Your task to perform on an android device: Clear the shopping cart on target.com. Search for "apple airpods pro" on target.com, select the first entry, add it to the cart, then select checkout. Image 0: 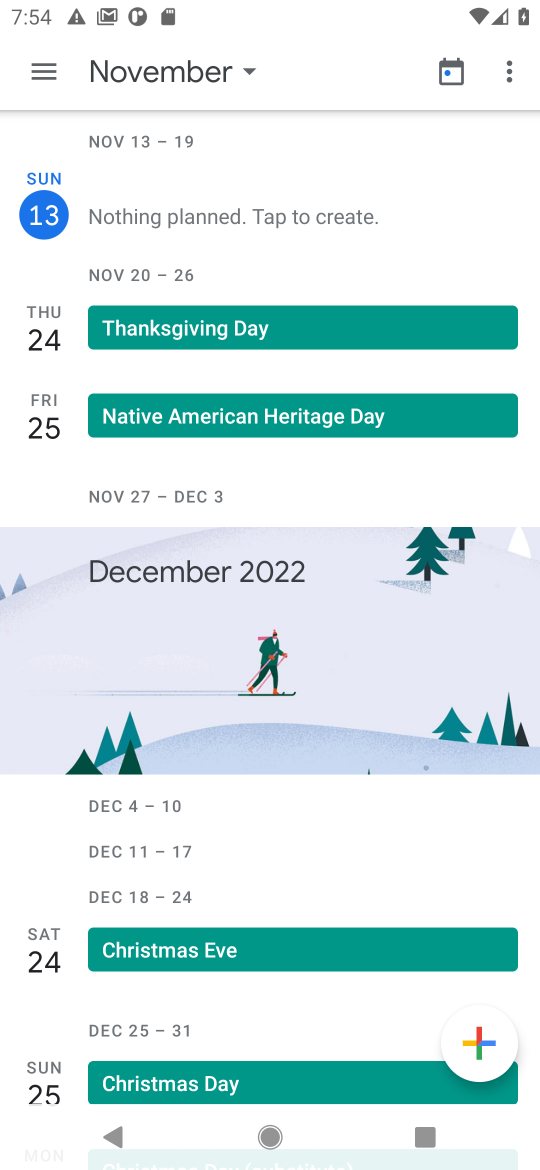
Step 0: press home button
Your task to perform on an android device: Clear the shopping cart on target.com. Search for "apple airpods pro" on target.com, select the first entry, add it to the cart, then select checkout. Image 1: 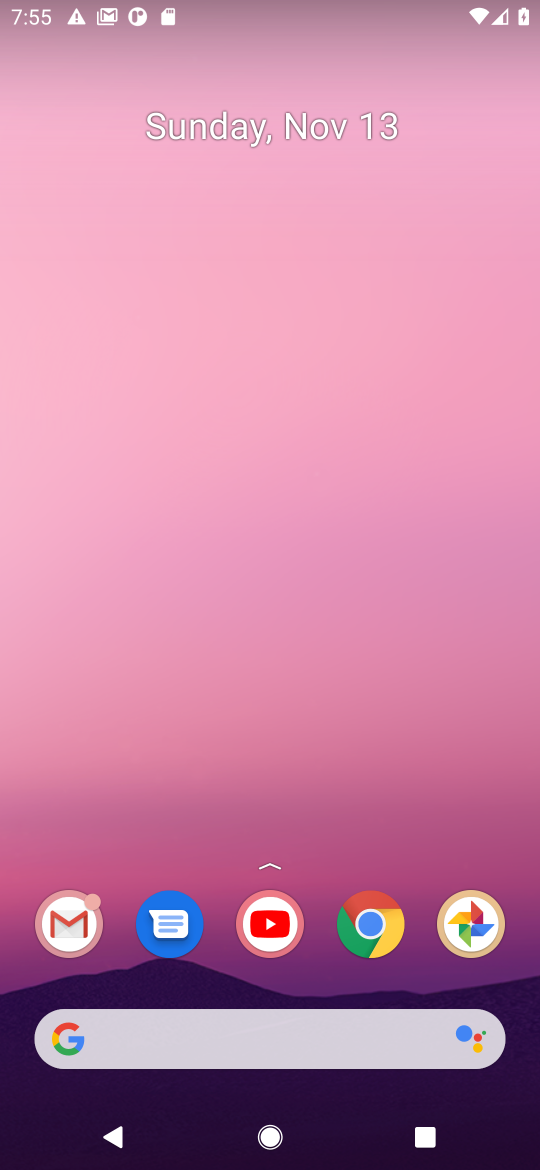
Step 1: click (376, 927)
Your task to perform on an android device: Clear the shopping cart on target.com. Search for "apple airpods pro" on target.com, select the first entry, add it to the cart, then select checkout. Image 2: 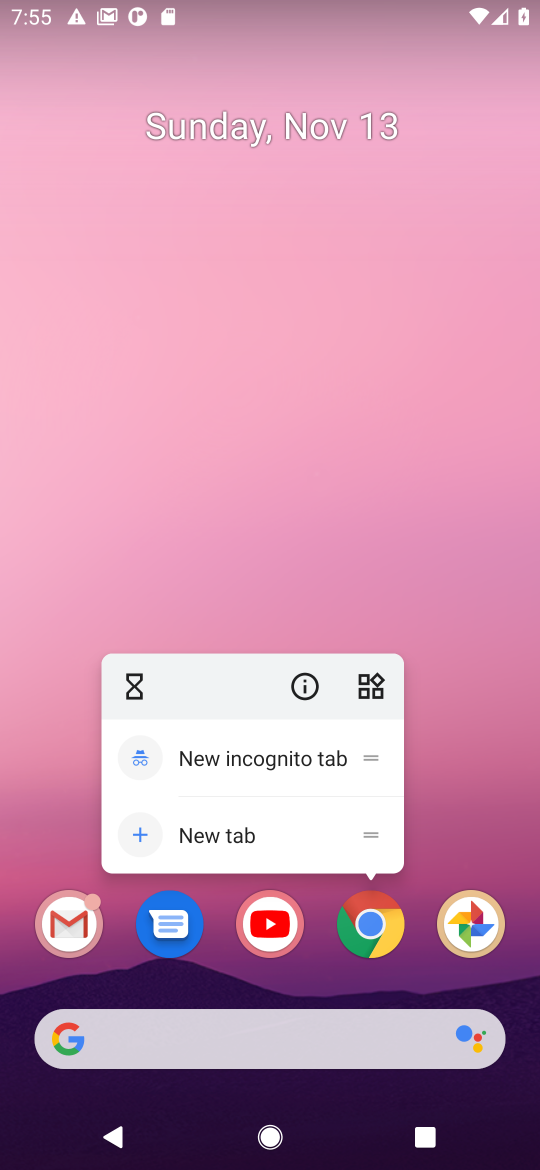
Step 2: click (373, 951)
Your task to perform on an android device: Clear the shopping cart on target.com. Search for "apple airpods pro" on target.com, select the first entry, add it to the cart, then select checkout. Image 3: 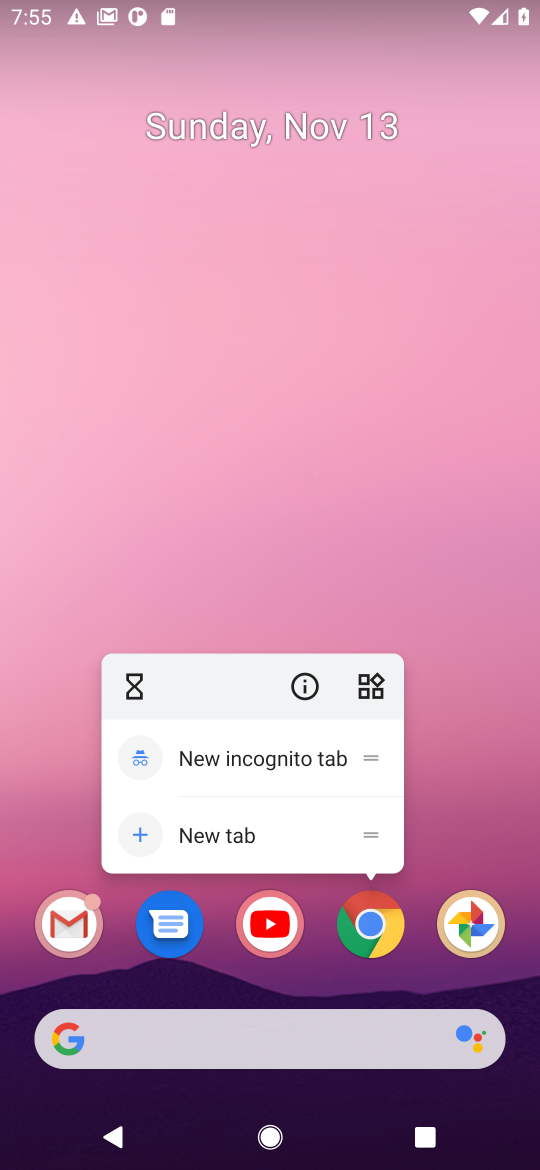
Step 3: click (382, 940)
Your task to perform on an android device: Clear the shopping cart on target.com. Search for "apple airpods pro" on target.com, select the first entry, add it to the cart, then select checkout. Image 4: 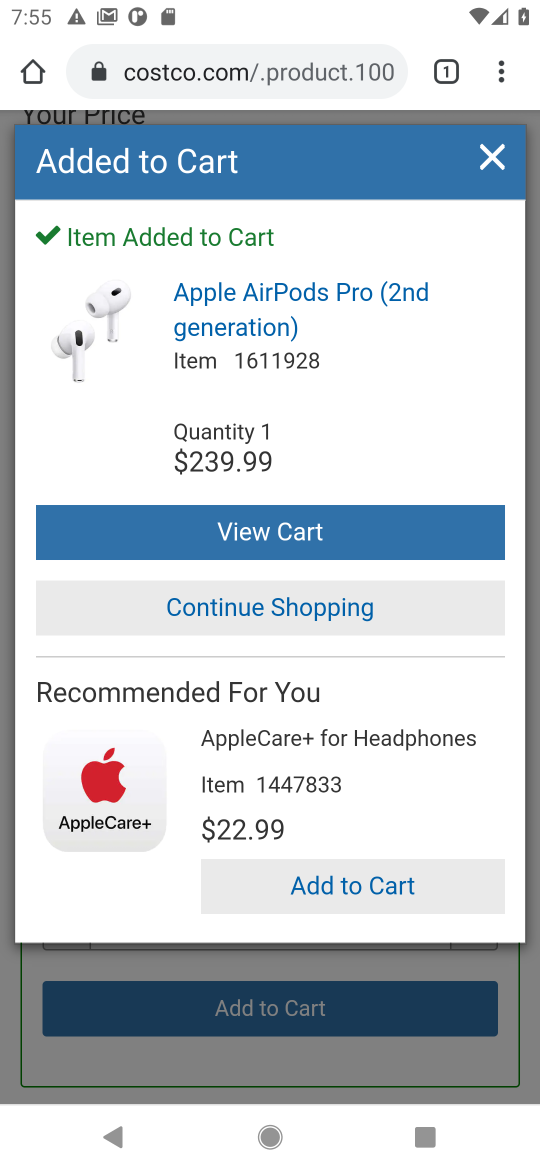
Step 4: click (271, 77)
Your task to perform on an android device: Clear the shopping cart on target.com. Search for "apple airpods pro" on target.com, select the first entry, add it to the cart, then select checkout. Image 5: 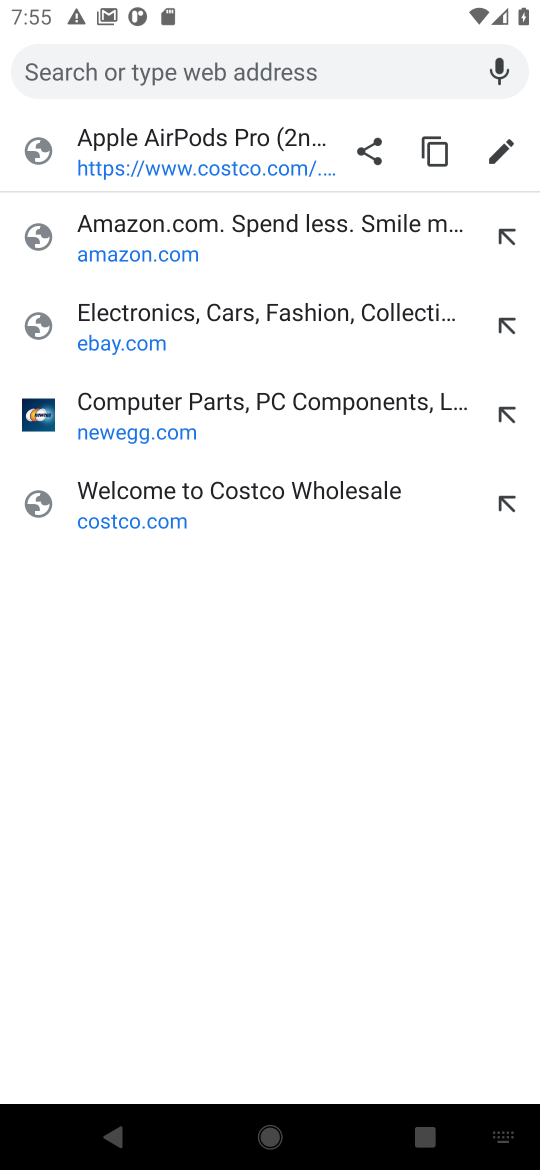
Step 5: type "target"
Your task to perform on an android device: Clear the shopping cart on target.com. Search for "apple airpods pro" on target.com, select the first entry, add it to the cart, then select checkout. Image 6: 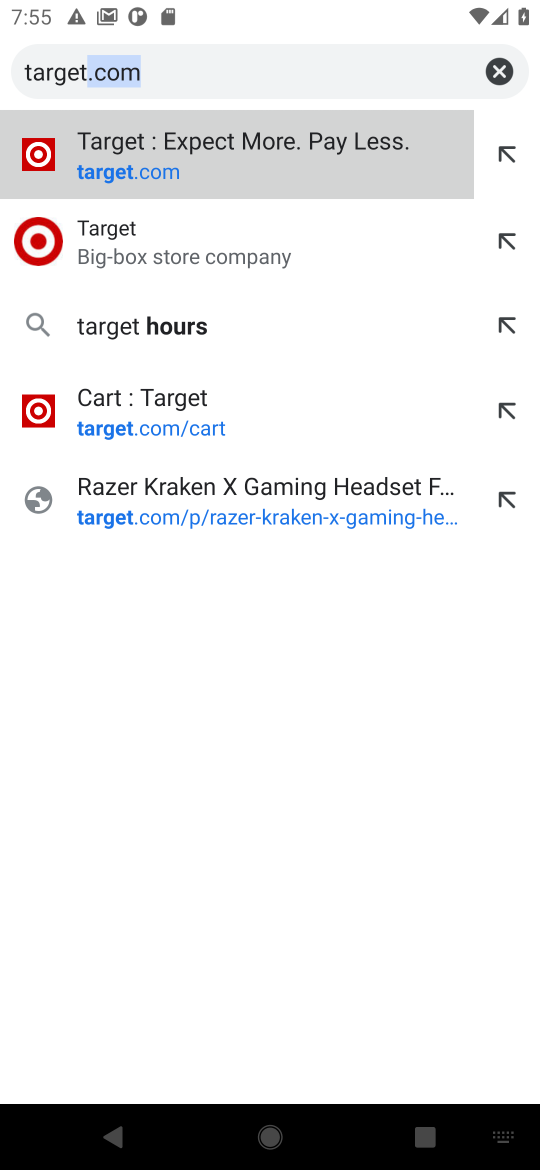
Step 6: click (133, 173)
Your task to perform on an android device: Clear the shopping cart on target.com. Search for "apple airpods pro" on target.com, select the first entry, add it to the cart, then select checkout. Image 7: 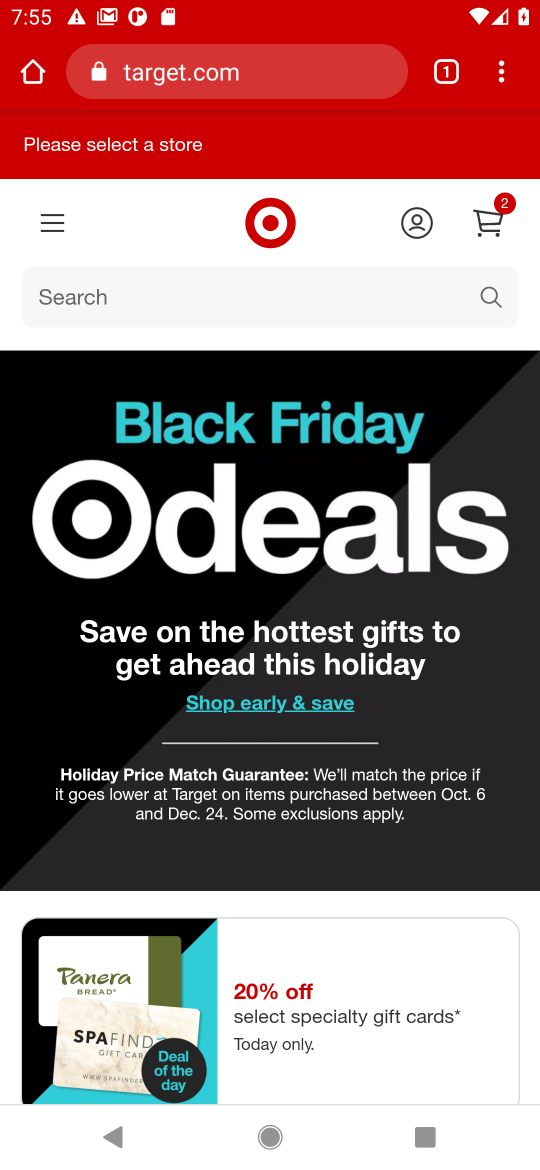
Step 7: click (487, 217)
Your task to perform on an android device: Clear the shopping cart on target.com. Search for "apple airpods pro" on target.com, select the first entry, add it to the cart, then select checkout. Image 8: 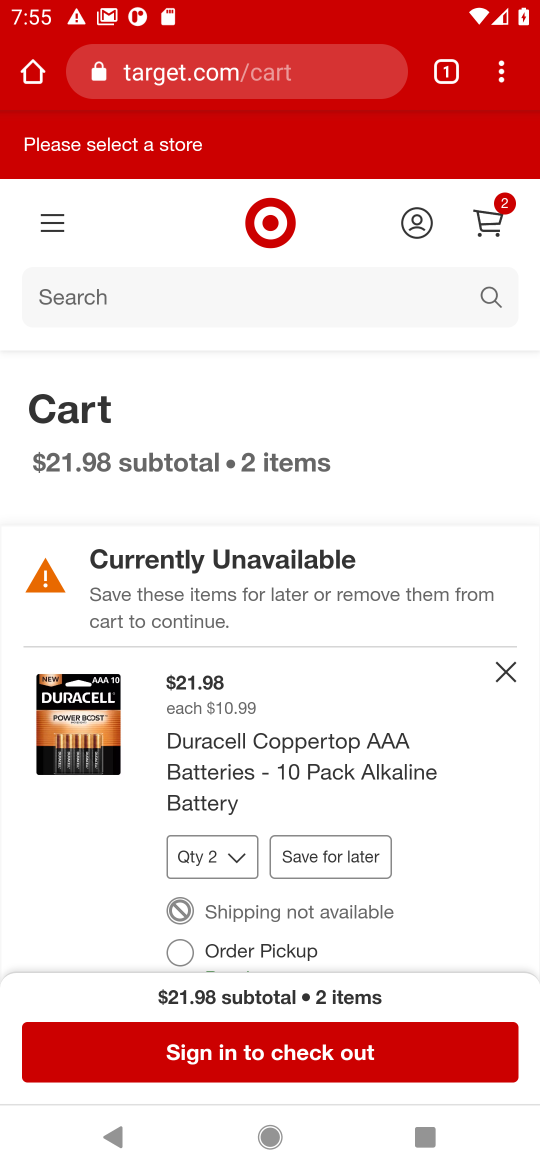
Step 8: drag from (455, 956) to (505, 681)
Your task to perform on an android device: Clear the shopping cart on target.com. Search for "apple airpods pro" on target.com, select the first entry, add it to the cart, then select checkout. Image 9: 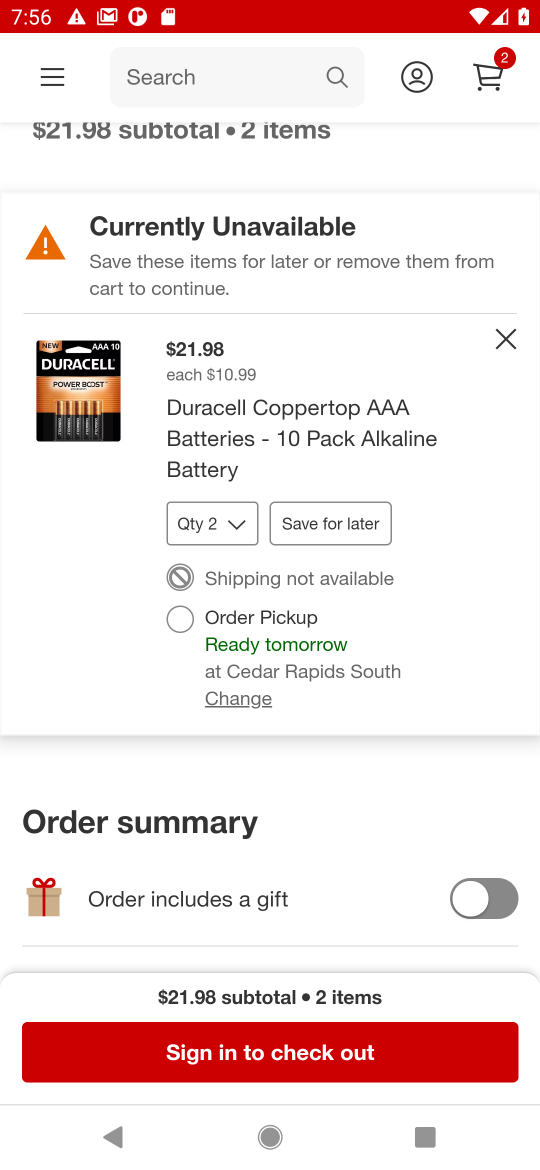
Step 9: click (507, 345)
Your task to perform on an android device: Clear the shopping cart on target.com. Search for "apple airpods pro" on target.com, select the first entry, add it to the cart, then select checkout. Image 10: 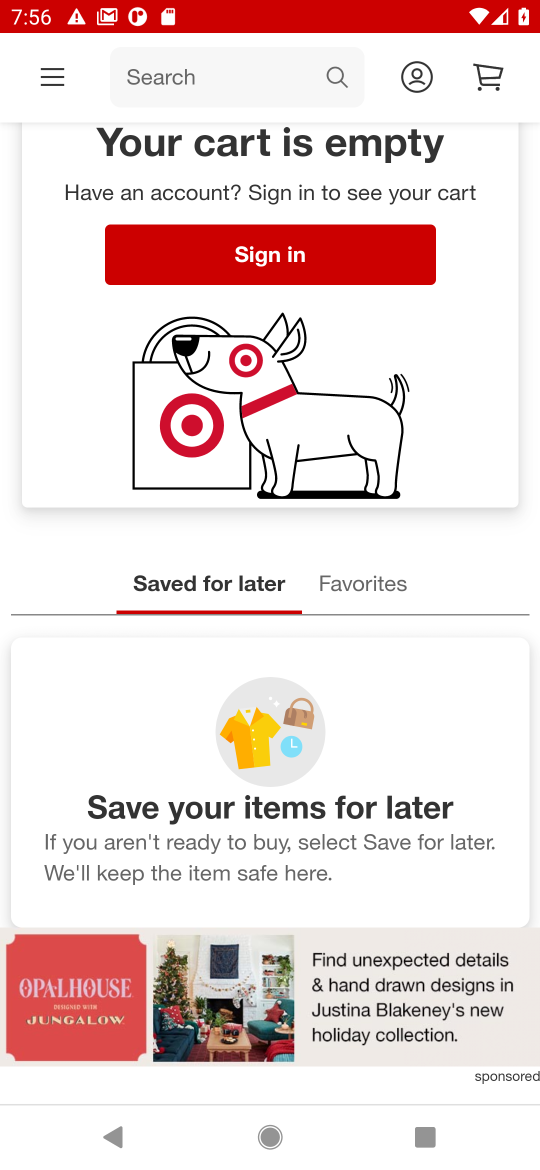
Step 10: click (216, 77)
Your task to perform on an android device: Clear the shopping cart on target.com. Search for "apple airpods pro" on target.com, select the first entry, add it to the cart, then select checkout. Image 11: 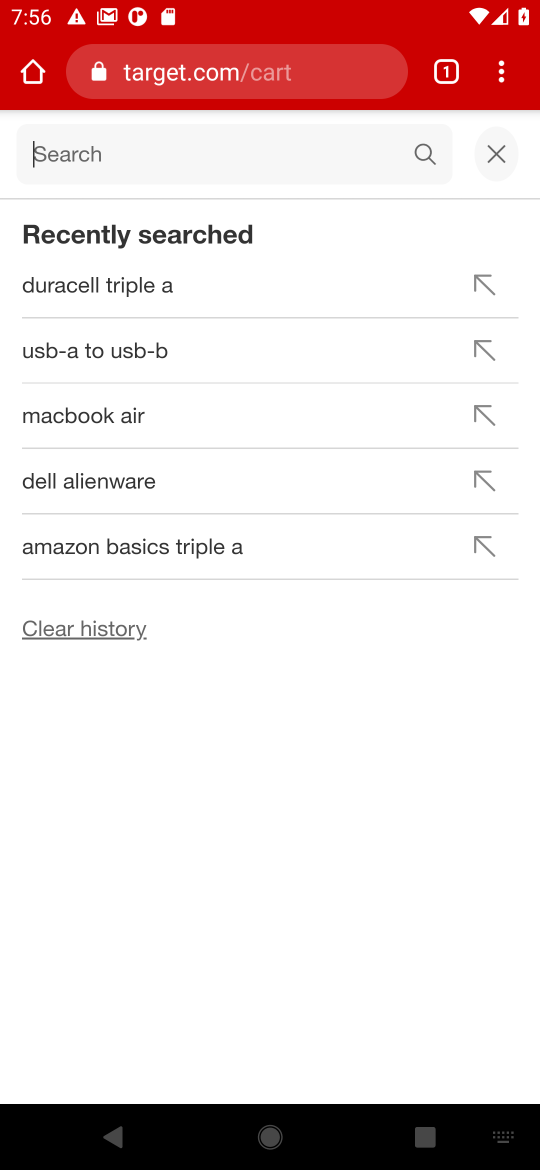
Step 11: type "apple airpods pro"
Your task to perform on an android device: Clear the shopping cart on target.com. Search for "apple airpods pro" on target.com, select the first entry, add it to the cart, then select checkout. Image 12: 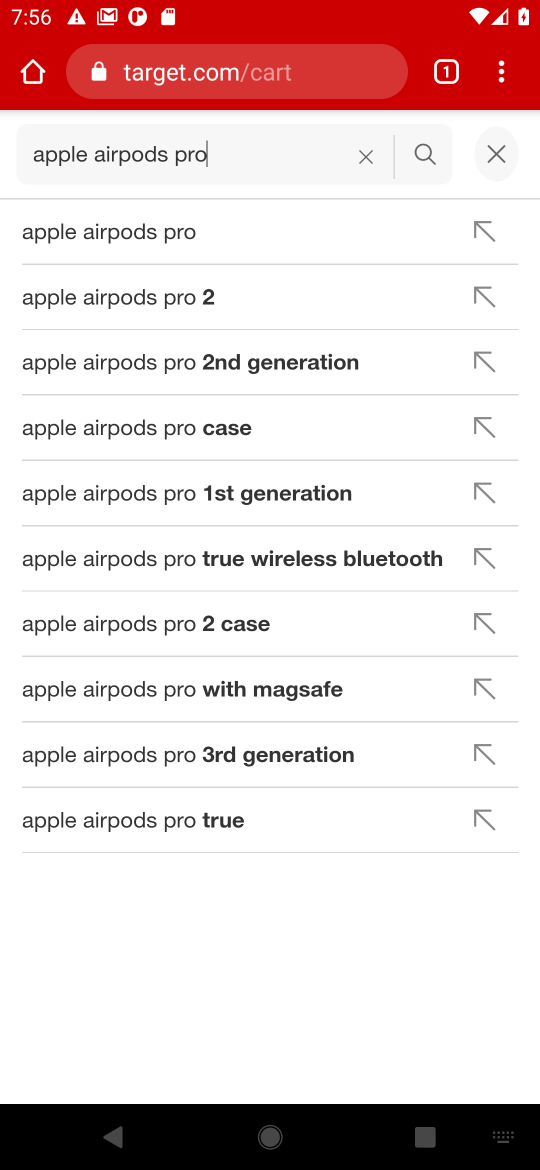
Step 12: click (88, 239)
Your task to perform on an android device: Clear the shopping cart on target.com. Search for "apple airpods pro" on target.com, select the first entry, add it to the cart, then select checkout. Image 13: 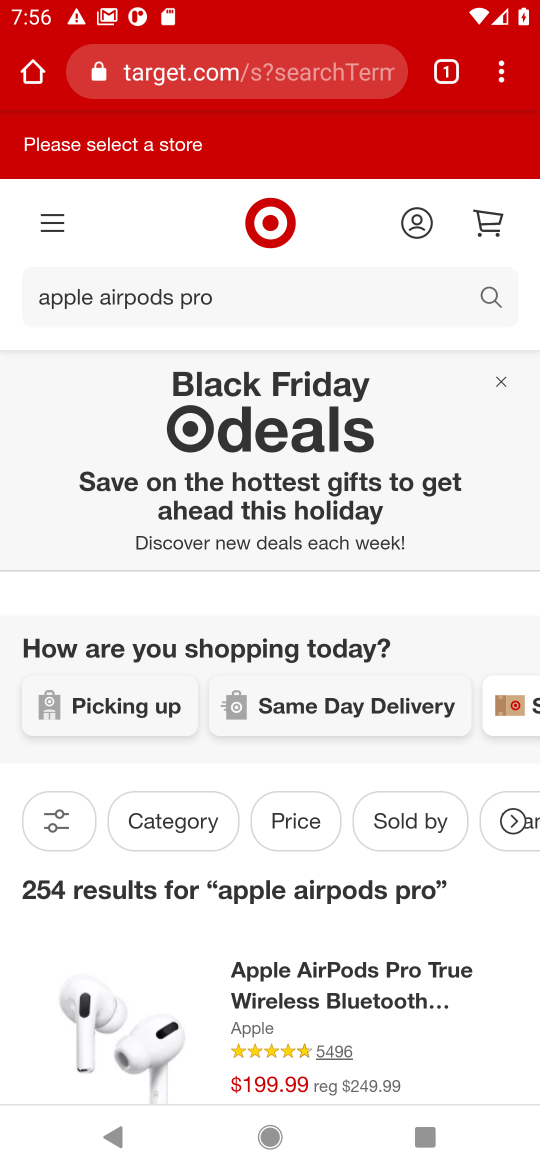
Step 13: drag from (466, 1005) to (475, 816)
Your task to perform on an android device: Clear the shopping cart on target.com. Search for "apple airpods pro" on target.com, select the first entry, add it to the cart, then select checkout. Image 14: 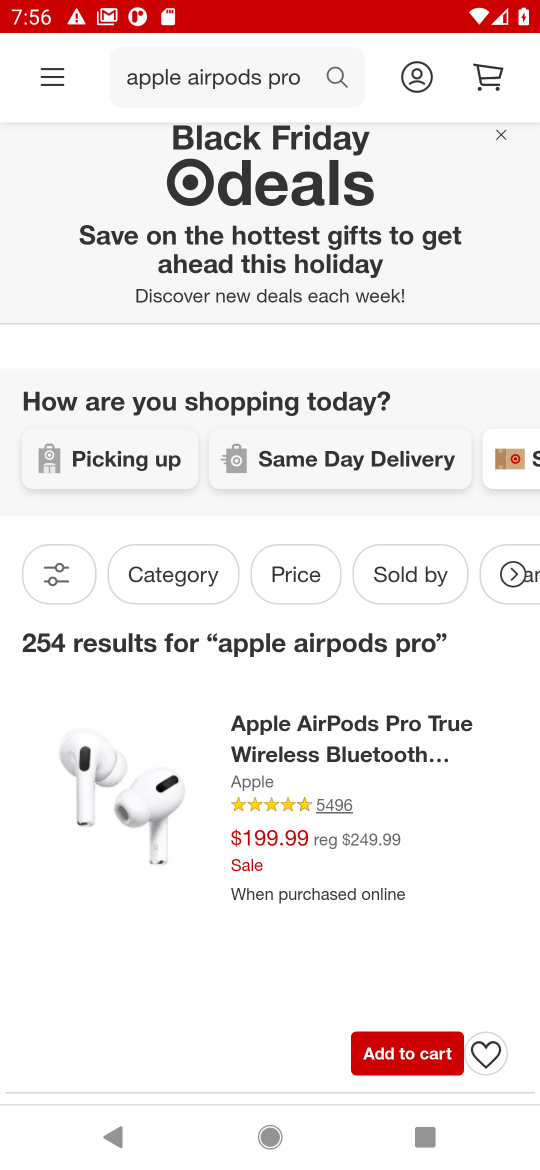
Step 14: click (414, 1049)
Your task to perform on an android device: Clear the shopping cart on target.com. Search for "apple airpods pro" on target.com, select the first entry, add it to the cart, then select checkout. Image 15: 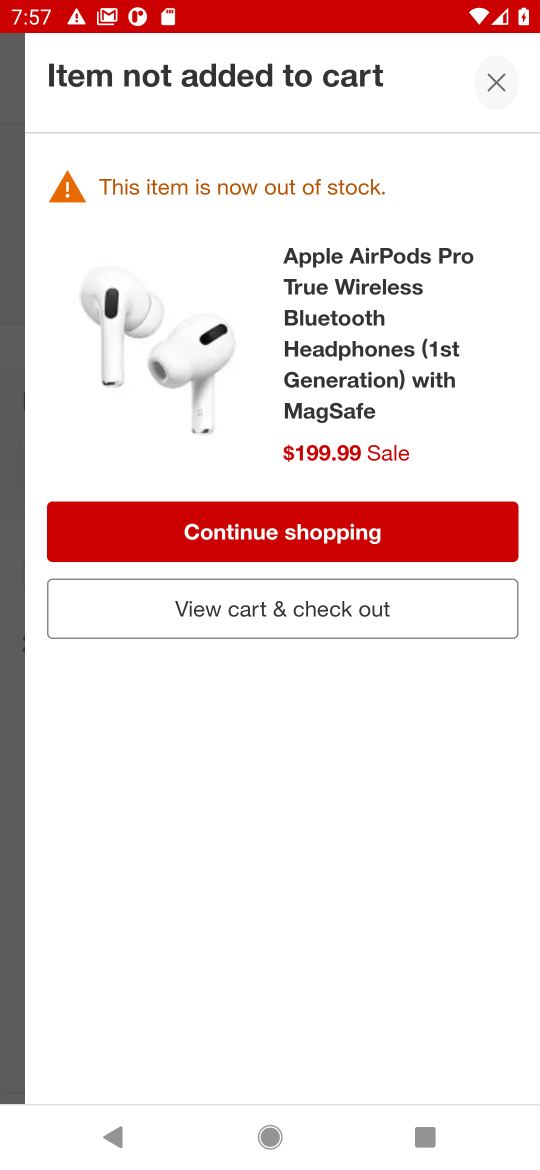
Step 15: click (327, 620)
Your task to perform on an android device: Clear the shopping cart on target.com. Search for "apple airpods pro" on target.com, select the first entry, add it to the cart, then select checkout. Image 16: 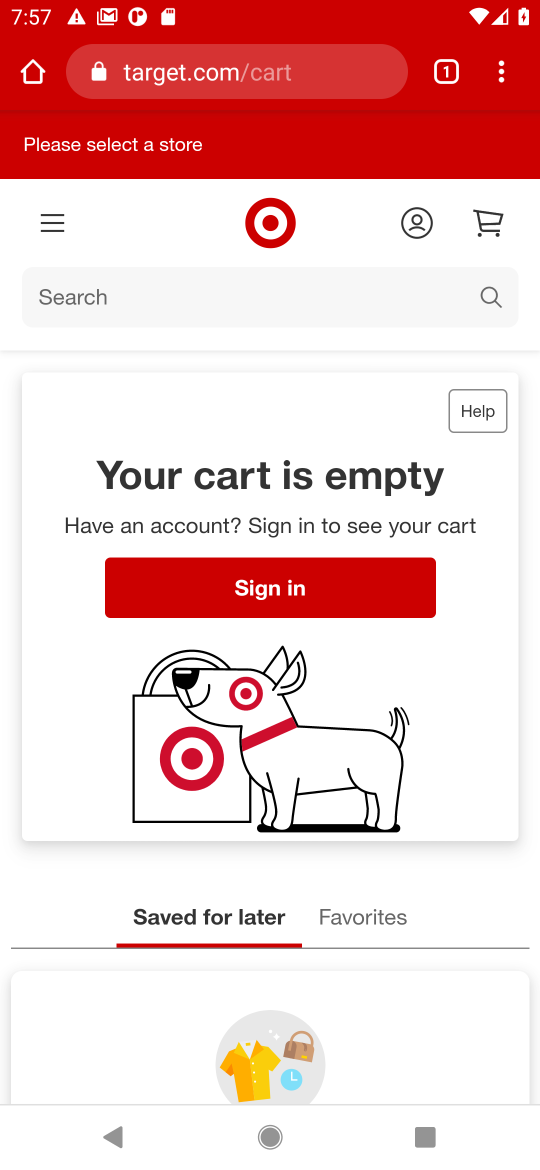
Step 16: task complete